Your task to perform on an android device: check android version Image 0: 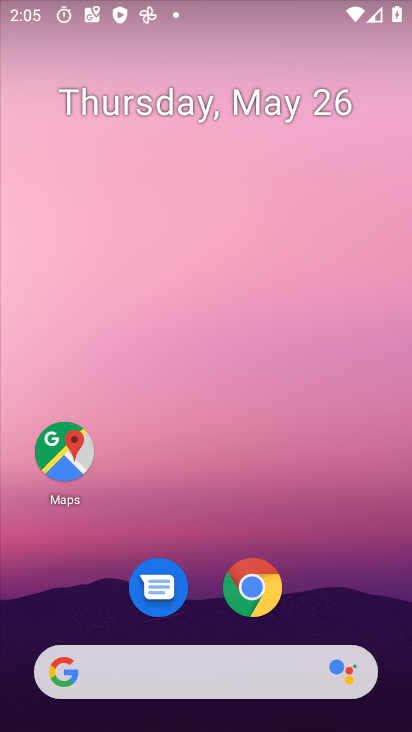
Step 0: drag from (376, 624) to (367, 215)
Your task to perform on an android device: check android version Image 1: 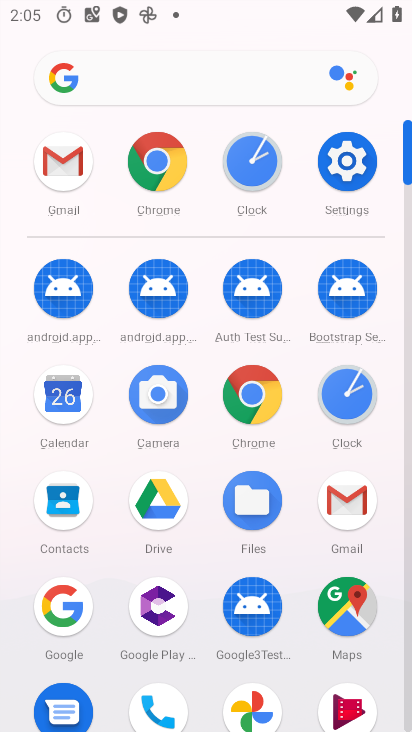
Step 1: click (353, 184)
Your task to perform on an android device: check android version Image 2: 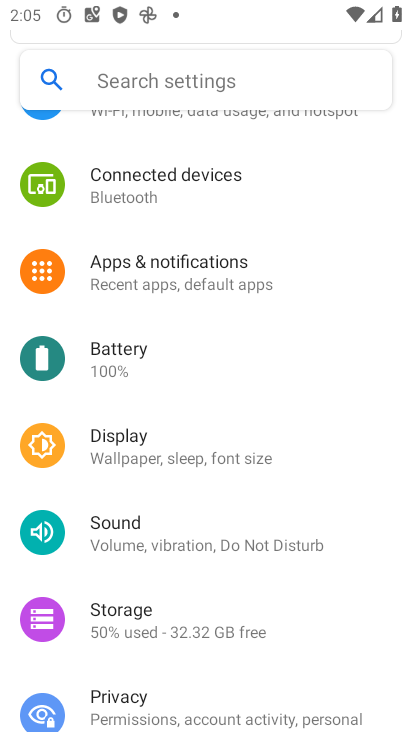
Step 2: drag from (361, 553) to (364, 465)
Your task to perform on an android device: check android version Image 3: 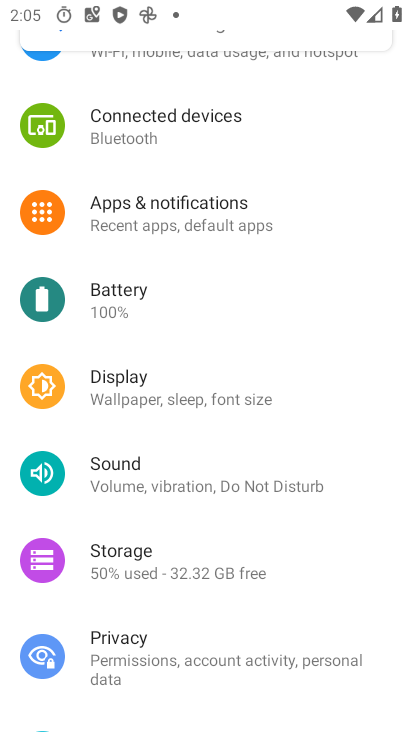
Step 3: drag from (344, 586) to (361, 497)
Your task to perform on an android device: check android version Image 4: 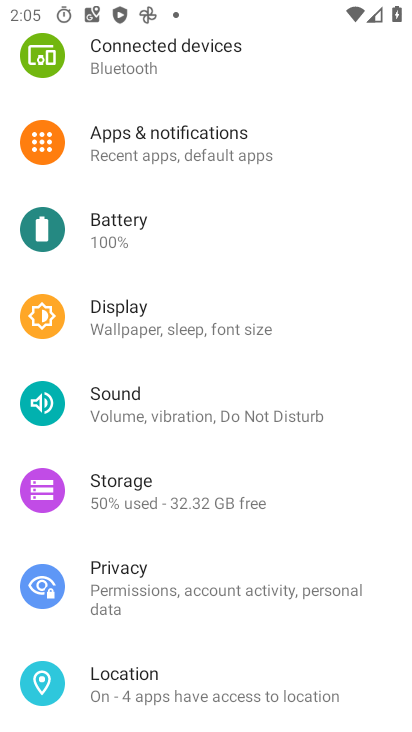
Step 4: drag from (356, 646) to (366, 540)
Your task to perform on an android device: check android version Image 5: 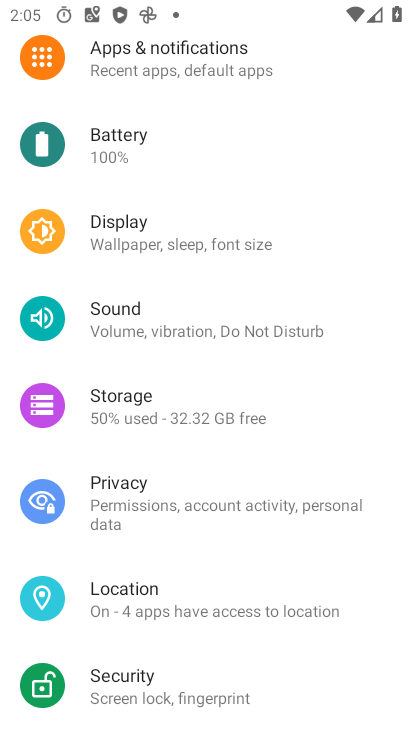
Step 5: drag from (367, 639) to (369, 523)
Your task to perform on an android device: check android version Image 6: 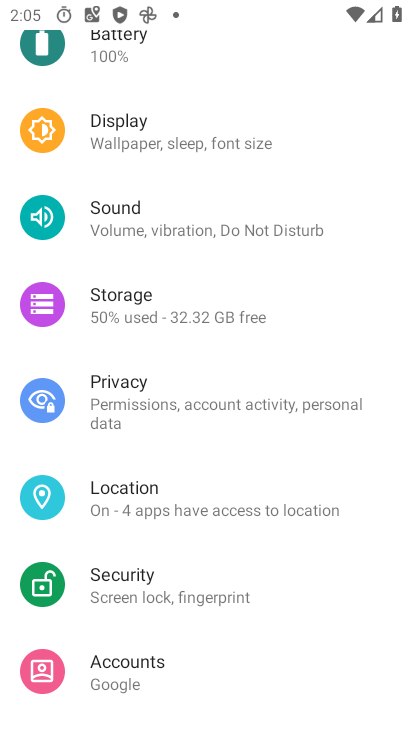
Step 6: drag from (367, 637) to (374, 543)
Your task to perform on an android device: check android version Image 7: 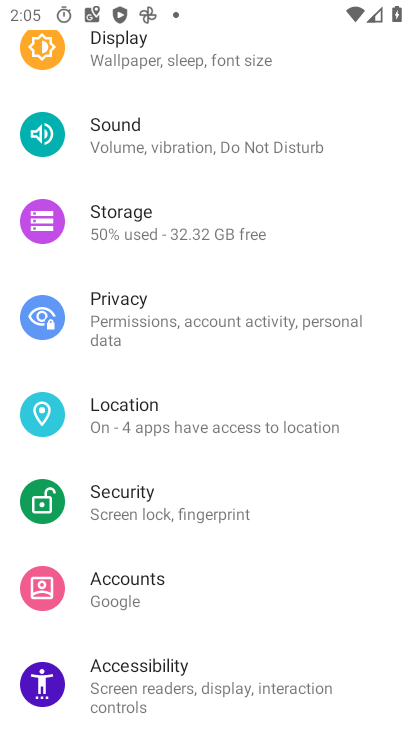
Step 7: drag from (353, 606) to (356, 537)
Your task to perform on an android device: check android version Image 8: 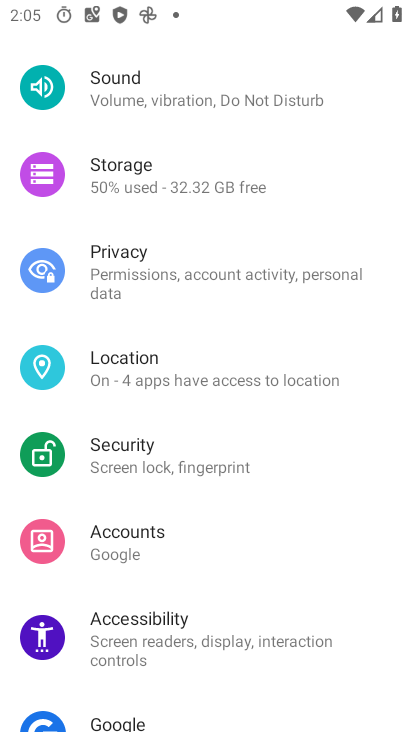
Step 8: drag from (358, 650) to (364, 534)
Your task to perform on an android device: check android version Image 9: 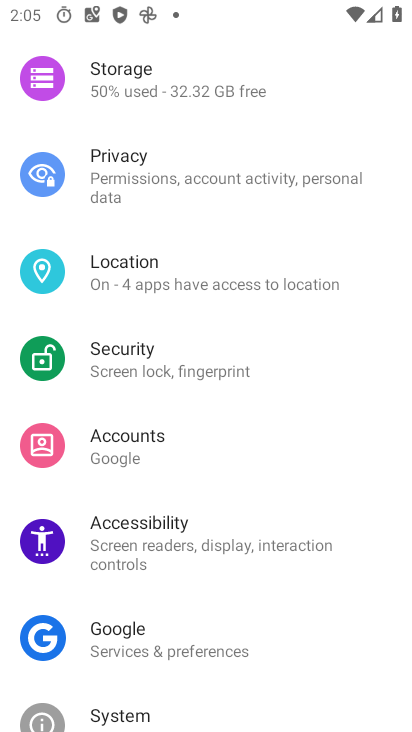
Step 9: drag from (357, 614) to (367, 510)
Your task to perform on an android device: check android version Image 10: 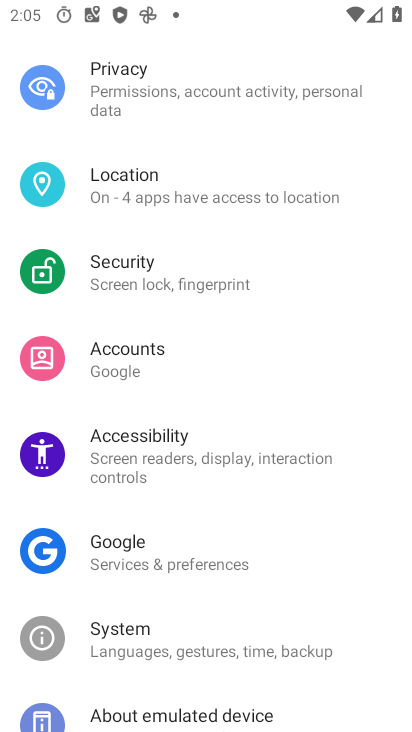
Step 10: drag from (356, 649) to (367, 536)
Your task to perform on an android device: check android version Image 11: 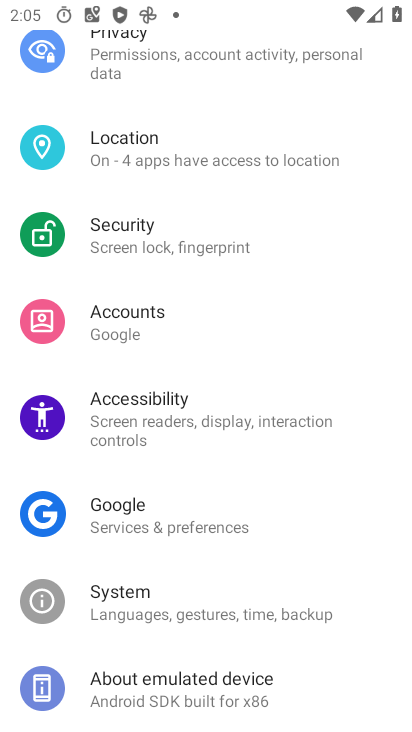
Step 11: click (305, 609)
Your task to perform on an android device: check android version Image 12: 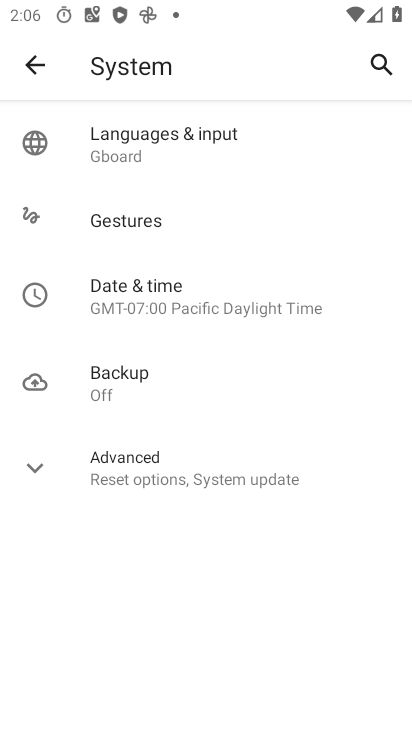
Step 12: click (300, 479)
Your task to perform on an android device: check android version Image 13: 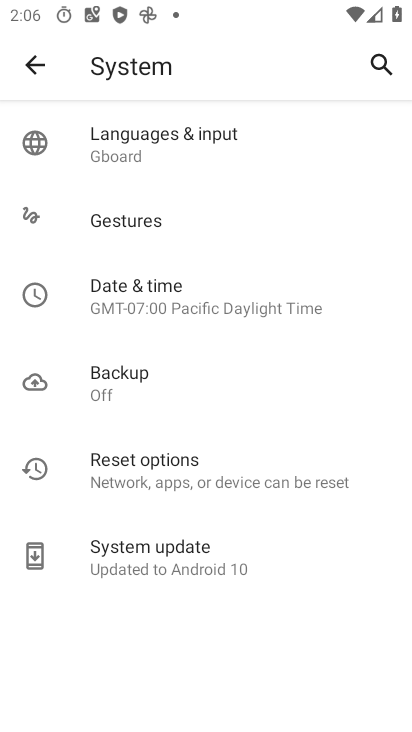
Step 13: click (263, 570)
Your task to perform on an android device: check android version Image 14: 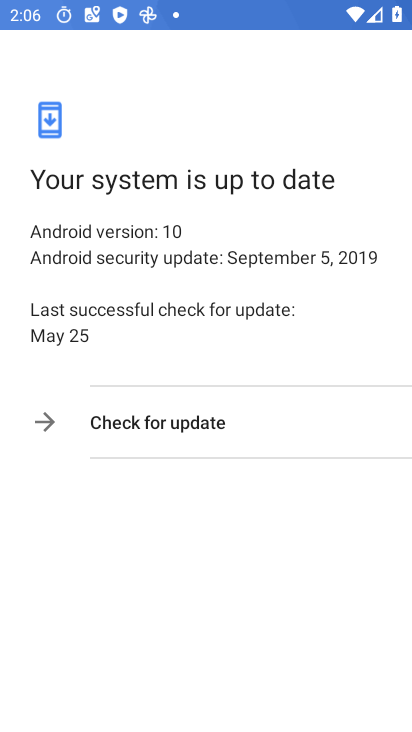
Step 14: task complete